Your task to perform on an android device: turn off location Image 0: 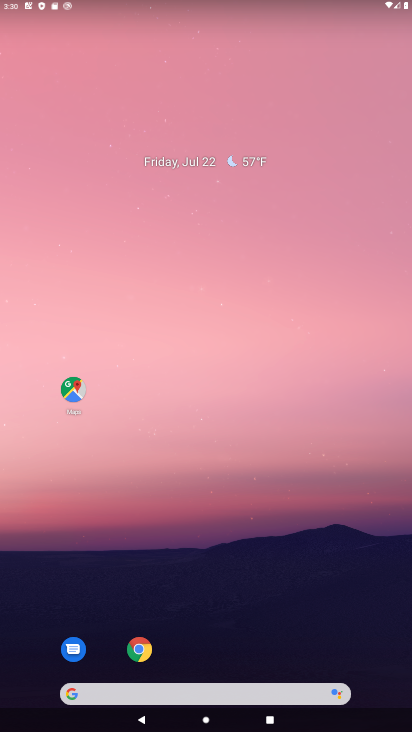
Step 0: drag from (38, 688) to (300, 160)
Your task to perform on an android device: turn off location Image 1: 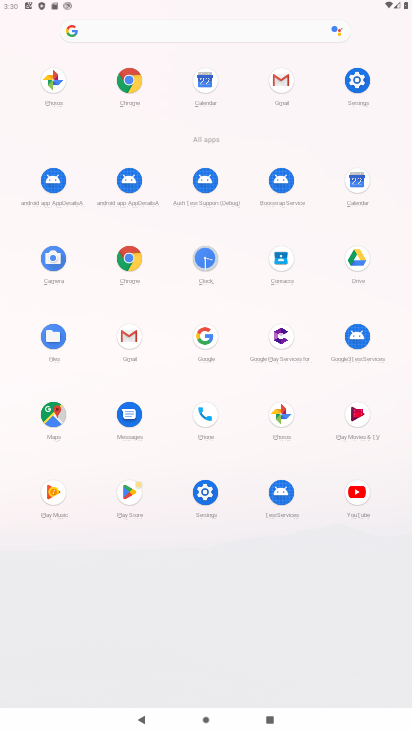
Step 1: click (205, 491)
Your task to perform on an android device: turn off location Image 2: 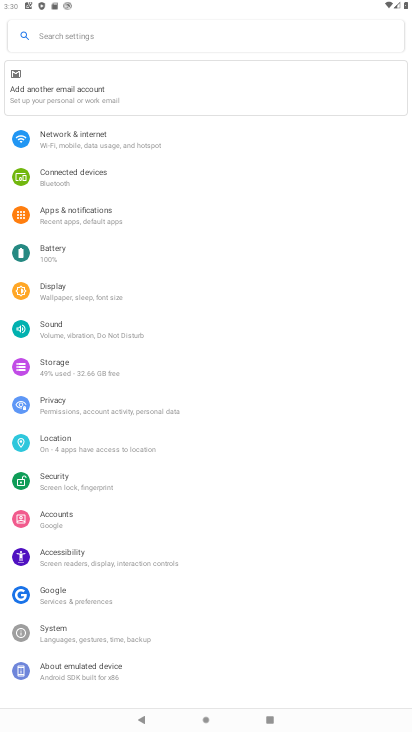
Step 2: click (84, 439)
Your task to perform on an android device: turn off location Image 3: 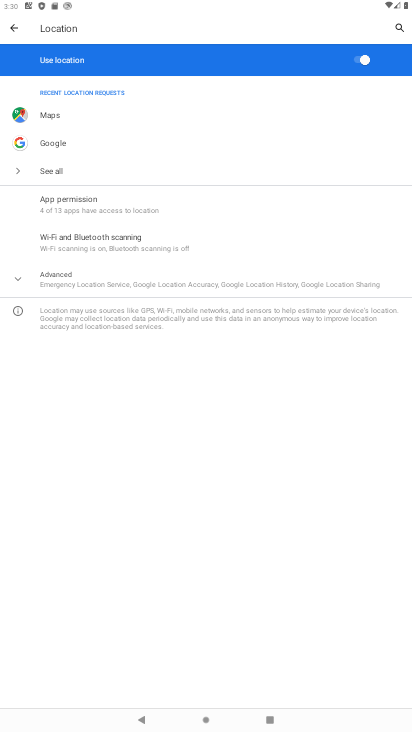
Step 3: click (103, 279)
Your task to perform on an android device: turn off location Image 4: 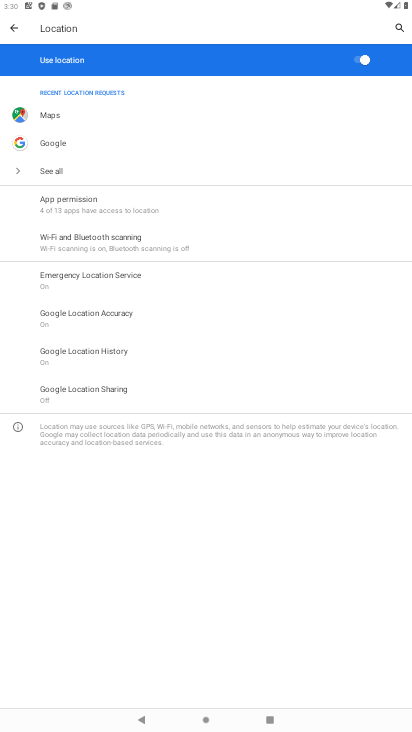
Step 4: click (361, 59)
Your task to perform on an android device: turn off location Image 5: 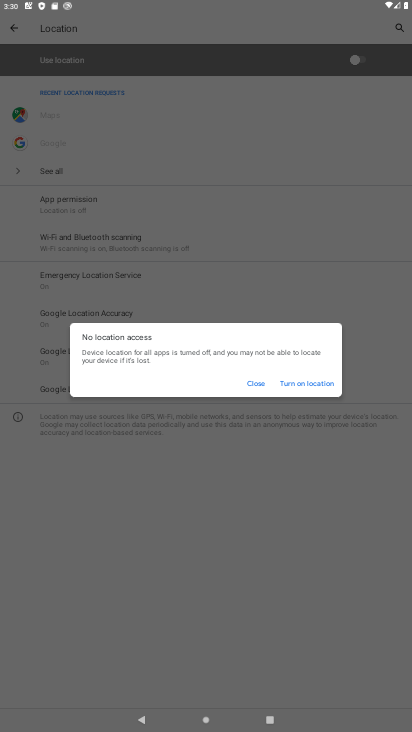
Step 5: task complete